Your task to perform on an android device: delete browsing data in the chrome app Image 0: 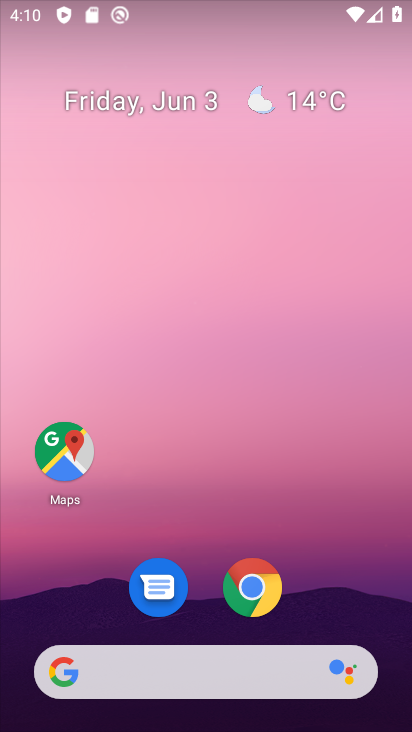
Step 0: drag from (213, 657) to (203, 157)
Your task to perform on an android device: delete browsing data in the chrome app Image 1: 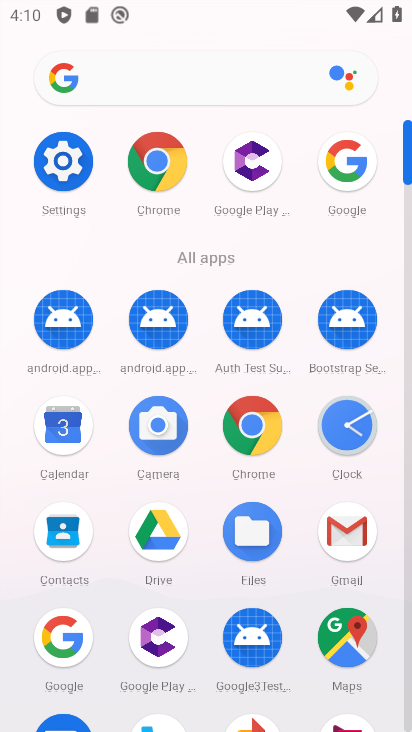
Step 1: click (258, 436)
Your task to perform on an android device: delete browsing data in the chrome app Image 2: 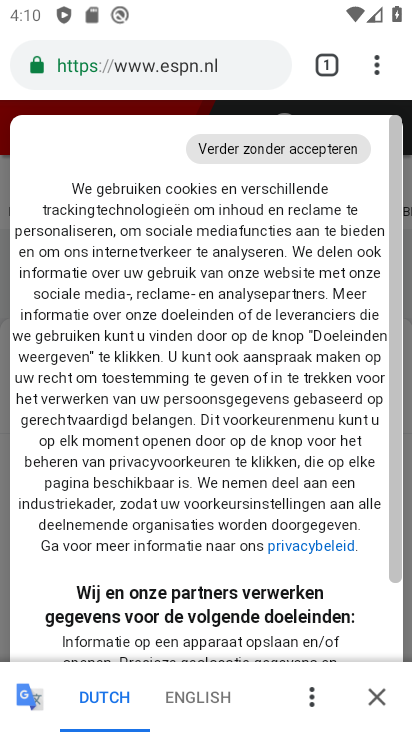
Step 2: click (375, 62)
Your task to perform on an android device: delete browsing data in the chrome app Image 3: 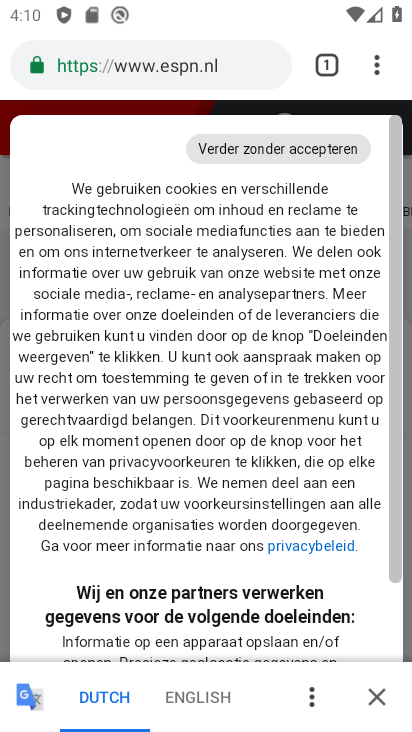
Step 3: drag from (195, 643) to (190, 293)
Your task to perform on an android device: delete browsing data in the chrome app Image 4: 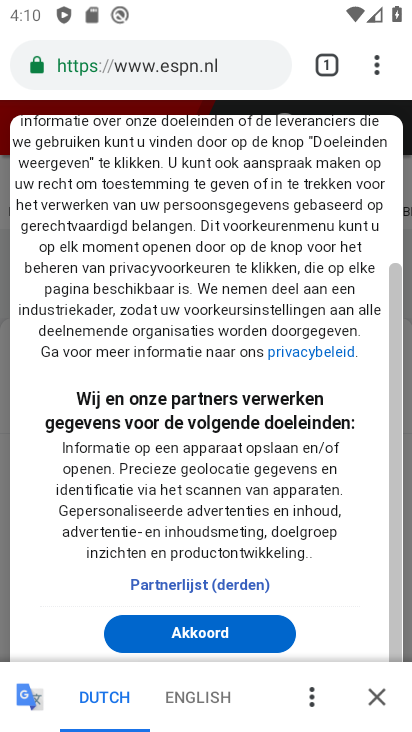
Step 4: click (380, 70)
Your task to perform on an android device: delete browsing data in the chrome app Image 5: 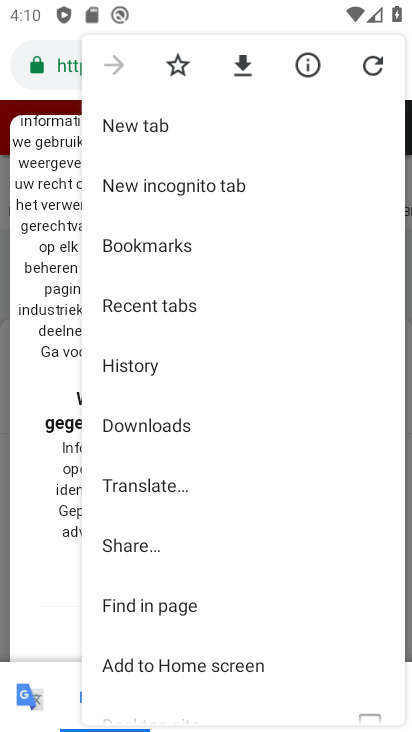
Step 5: click (151, 370)
Your task to perform on an android device: delete browsing data in the chrome app Image 6: 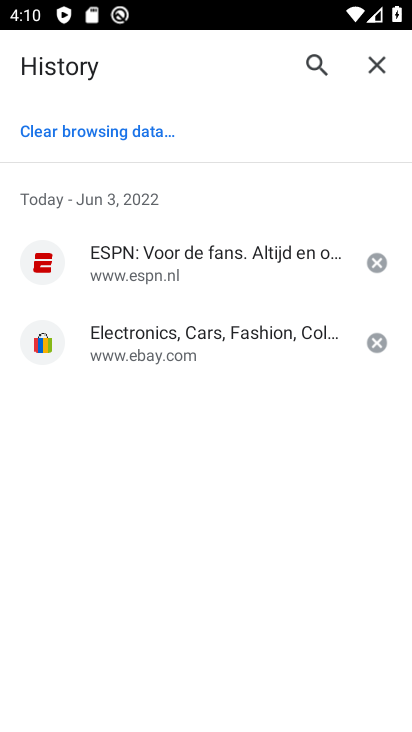
Step 6: click (97, 132)
Your task to perform on an android device: delete browsing data in the chrome app Image 7: 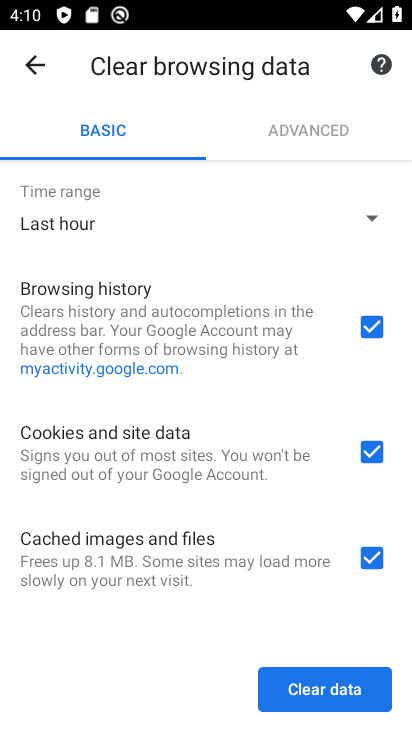
Step 7: click (304, 693)
Your task to perform on an android device: delete browsing data in the chrome app Image 8: 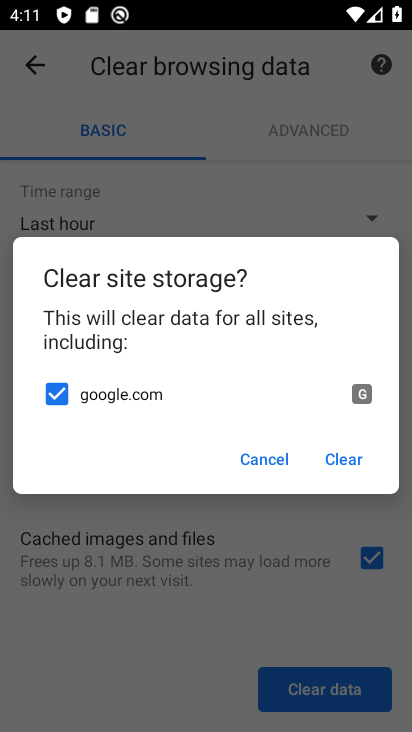
Step 8: click (355, 457)
Your task to perform on an android device: delete browsing data in the chrome app Image 9: 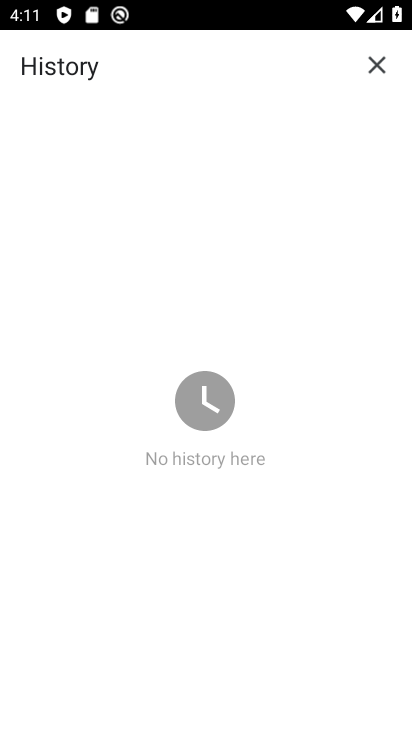
Step 9: task complete